Your task to perform on an android device: Go to Google maps Image 0: 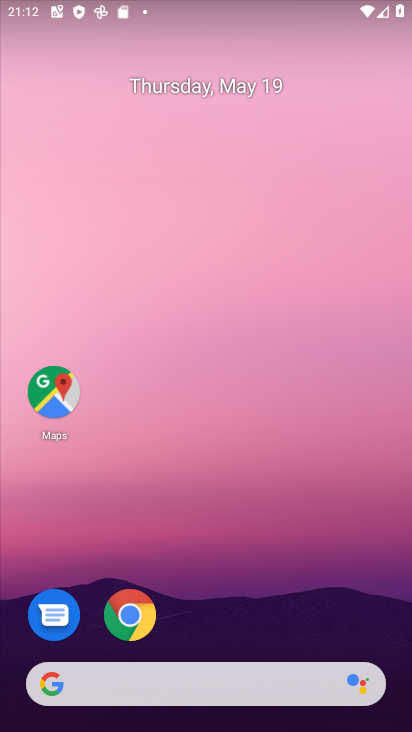
Step 0: click (60, 396)
Your task to perform on an android device: Go to Google maps Image 1: 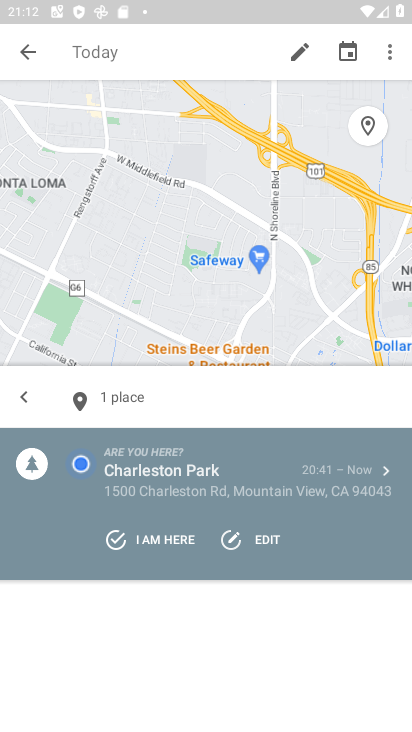
Step 1: task complete